Your task to perform on an android device: turn on bluetooth scan Image 0: 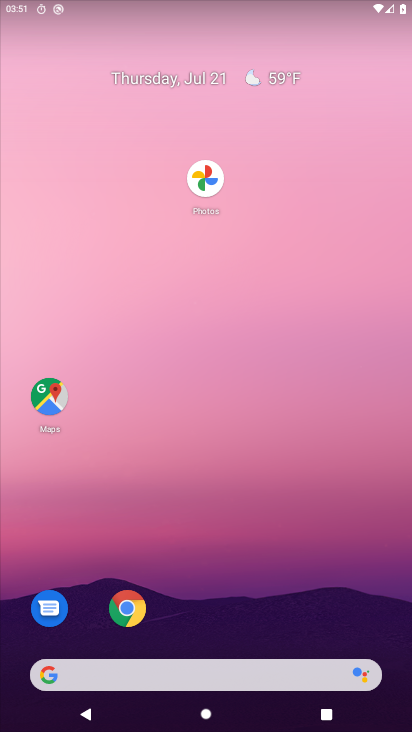
Step 0: drag from (196, 636) to (191, 277)
Your task to perform on an android device: turn on bluetooth scan Image 1: 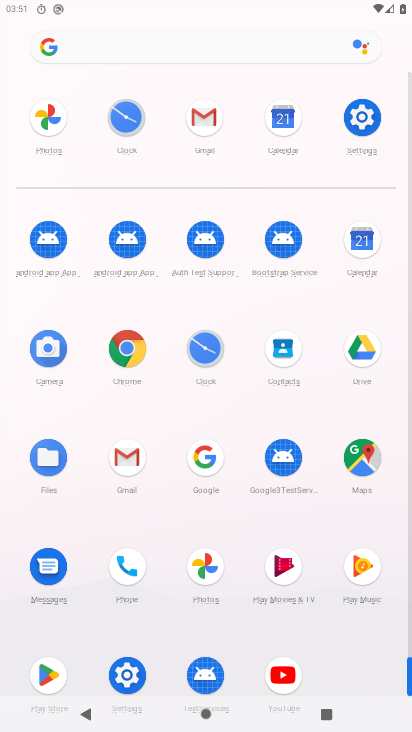
Step 1: click (130, 663)
Your task to perform on an android device: turn on bluetooth scan Image 2: 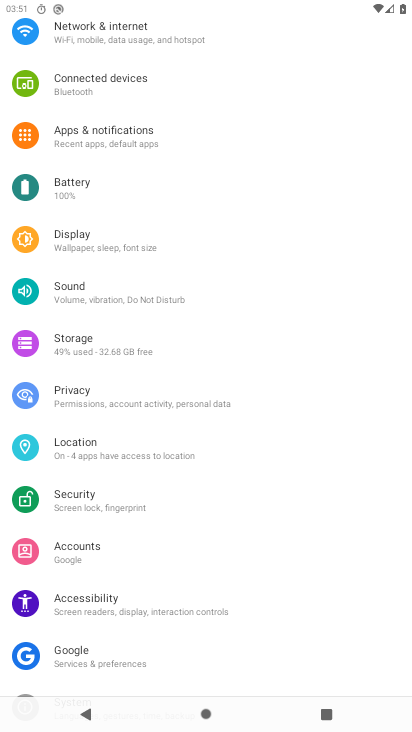
Step 2: click (113, 445)
Your task to perform on an android device: turn on bluetooth scan Image 3: 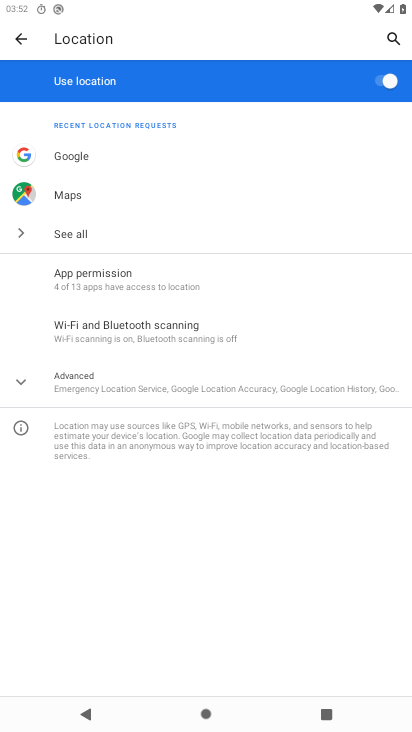
Step 3: click (145, 327)
Your task to perform on an android device: turn on bluetooth scan Image 4: 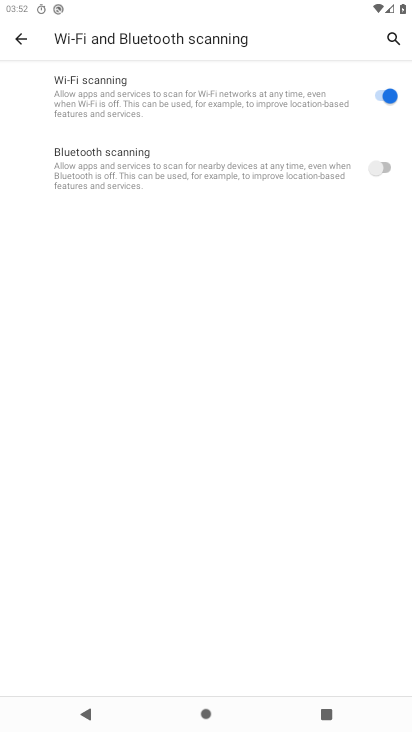
Step 4: click (389, 167)
Your task to perform on an android device: turn on bluetooth scan Image 5: 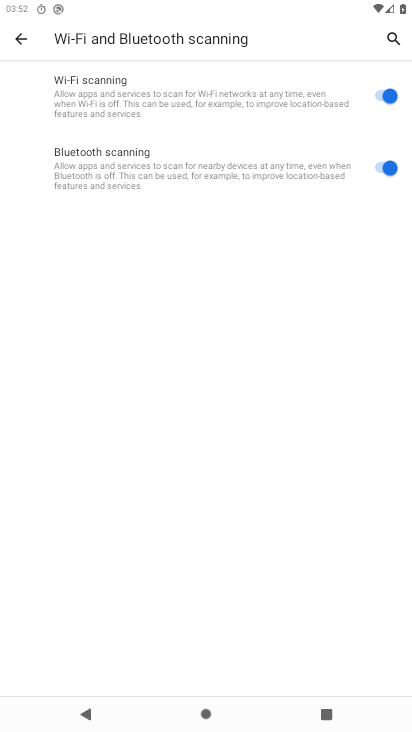
Step 5: task complete